Your task to perform on an android device: Show me recent news Image 0: 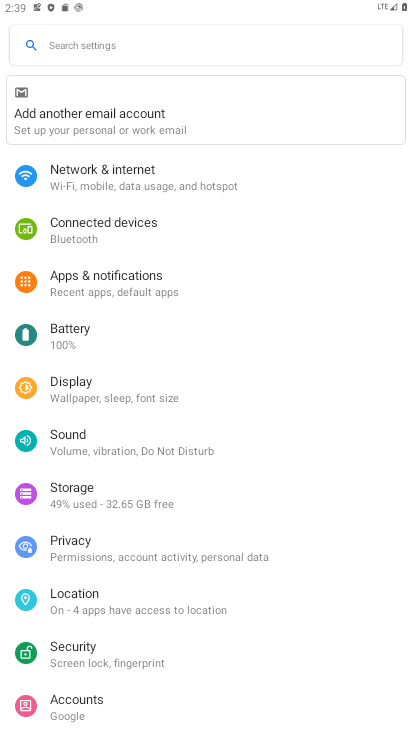
Step 0: press home button
Your task to perform on an android device: Show me recent news Image 1: 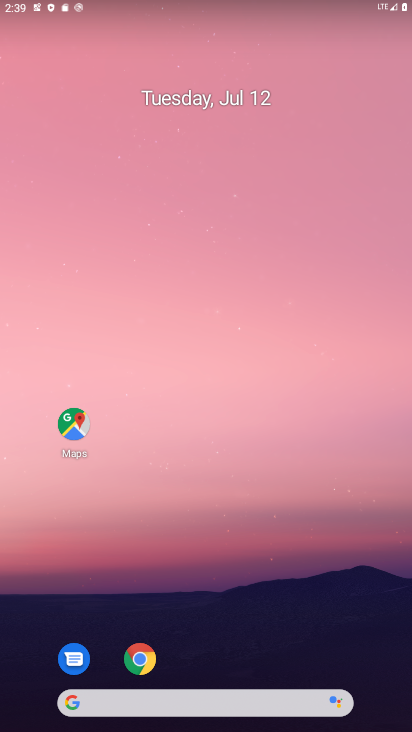
Step 1: click (1, 305)
Your task to perform on an android device: Show me recent news Image 2: 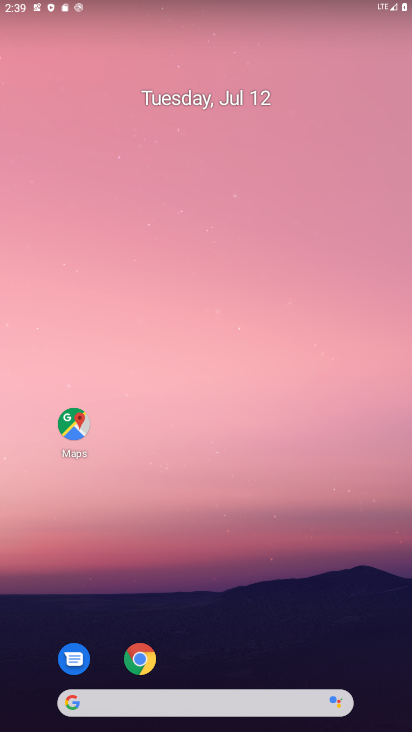
Step 2: click (357, 329)
Your task to perform on an android device: Show me recent news Image 3: 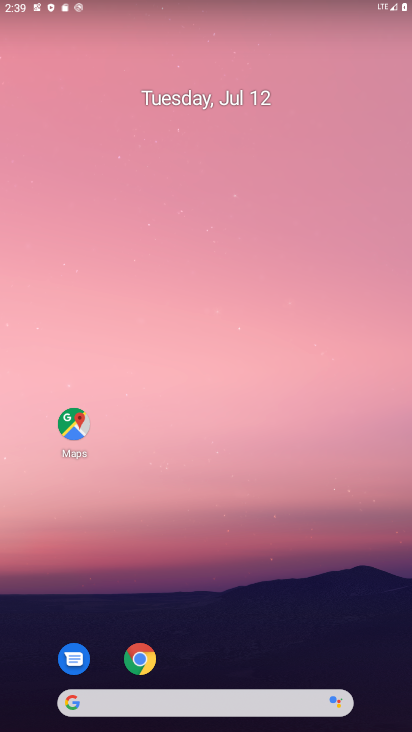
Step 3: click (1, 119)
Your task to perform on an android device: Show me recent news Image 4: 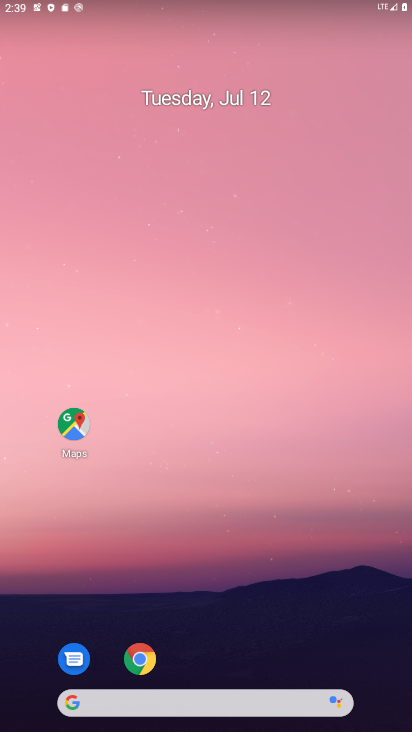
Step 4: drag from (411, 148) to (402, 313)
Your task to perform on an android device: Show me recent news Image 5: 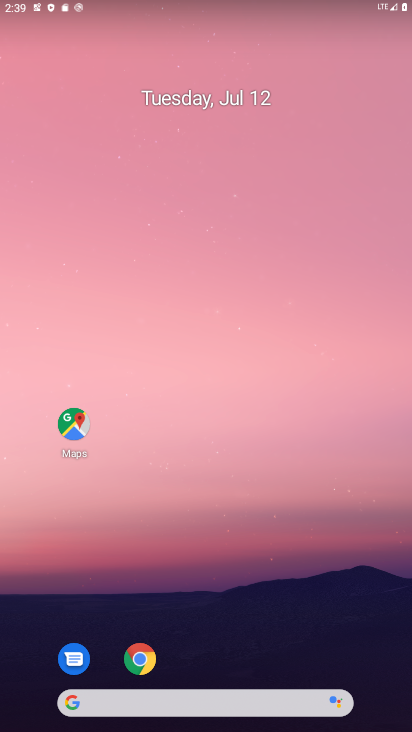
Step 5: drag from (6, 341) to (91, 348)
Your task to perform on an android device: Show me recent news Image 6: 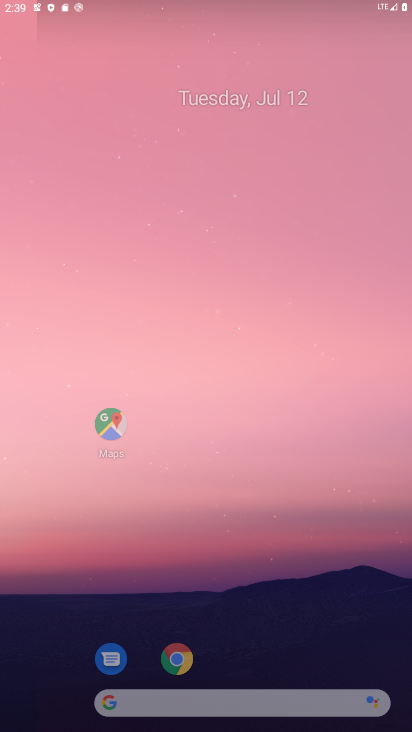
Step 6: click (376, 366)
Your task to perform on an android device: Show me recent news Image 7: 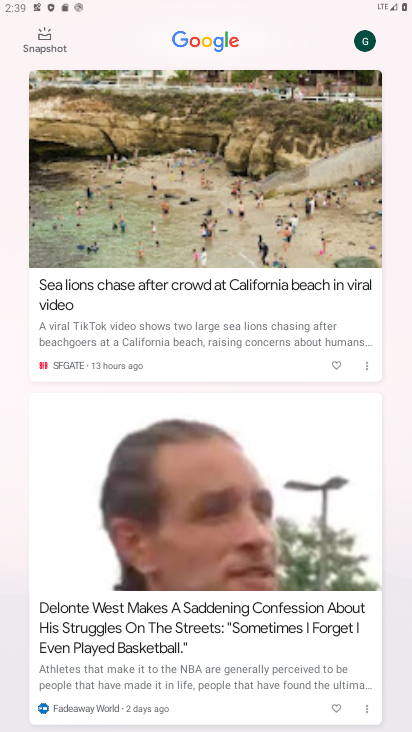
Step 7: task complete